Your task to perform on an android device: create a new album in the google photos Image 0: 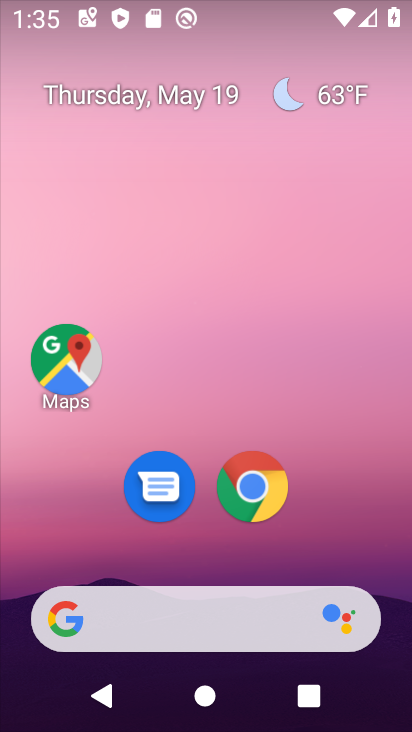
Step 0: drag from (337, 450) to (195, 5)
Your task to perform on an android device: create a new album in the google photos Image 1: 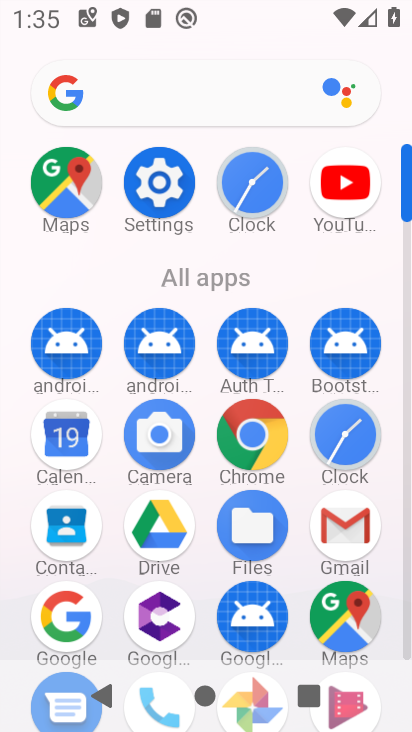
Step 1: drag from (217, 247) to (207, 214)
Your task to perform on an android device: create a new album in the google photos Image 2: 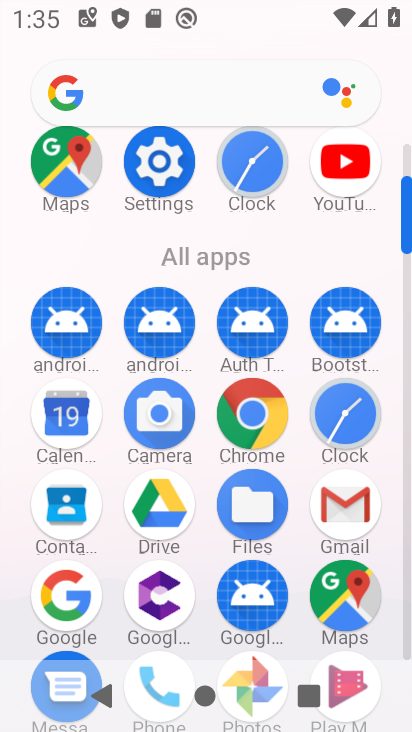
Step 2: drag from (215, 622) to (215, 222)
Your task to perform on an android device: create a new album in the google photos Image 3: 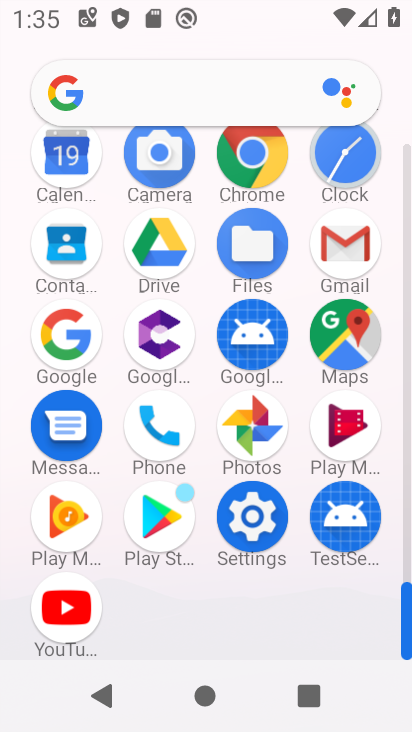
Step 3: click (261, 430)
Your task to perform on an android device: create a new album in the google photos Image 4: 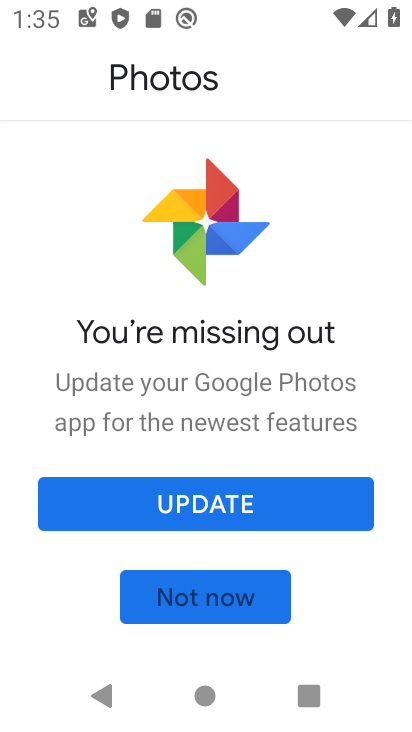
Step 4: click (229, 499)
Your task to perform on an android device: create a new album in the google photos Image 5: 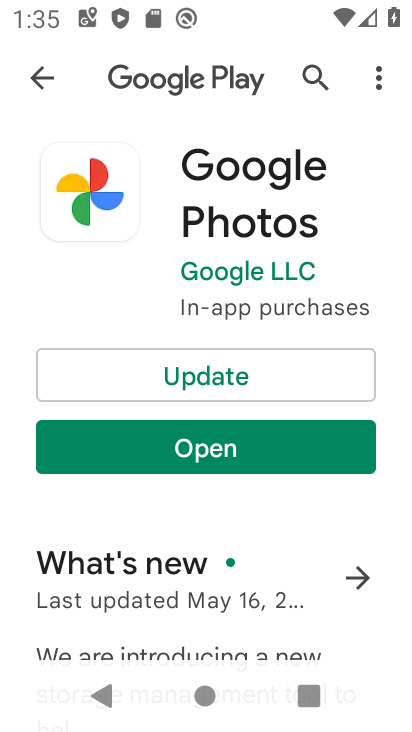
Step 5: click (269, 362)
Your task to perform on an android device: create a new album in the google photos Image 6: 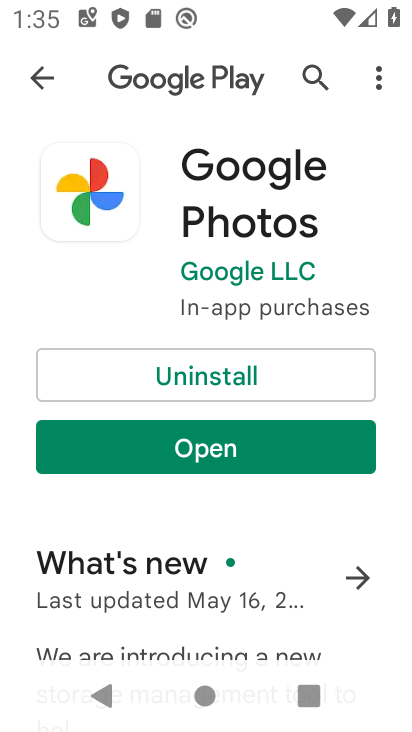
Step 6: click (307, 448)
Your task to perform on an android device: create a new album in the google photos Image 7: 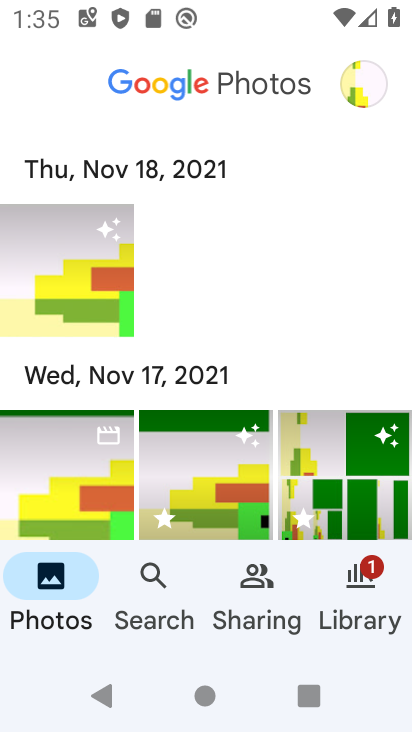
Step 7: click (353, 586)
Your task to perform on an android device: create a new album in the google photos Image 8: 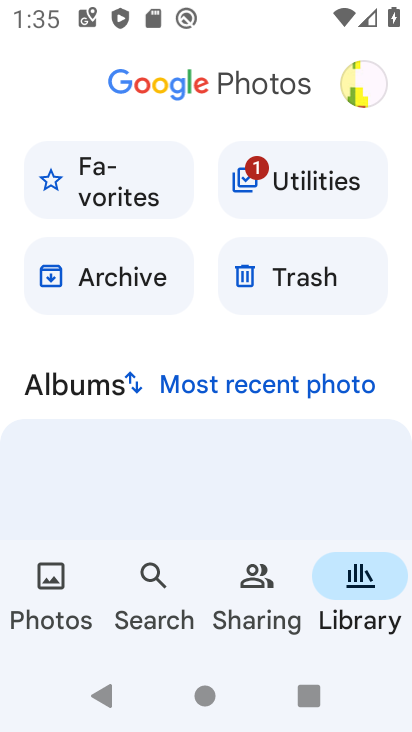
Step 8: drag from (161, 463) to (188, 190)
Your task to perform on an android device: create a new album in the google photos Image 9: 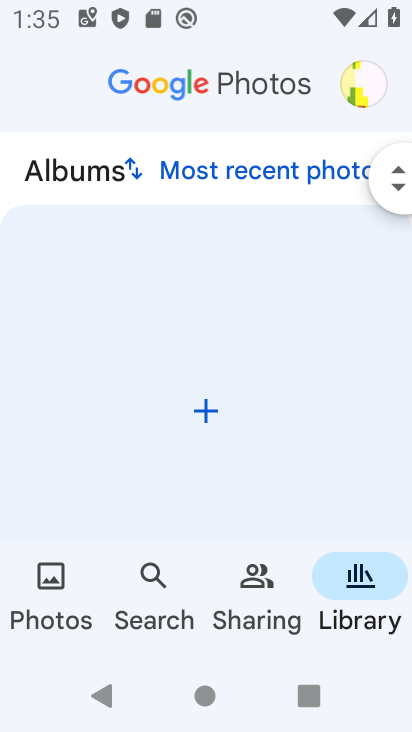
Step 9: click (219, 408)
Your task to perform on an android device: create a new album in the google photos Image 10: 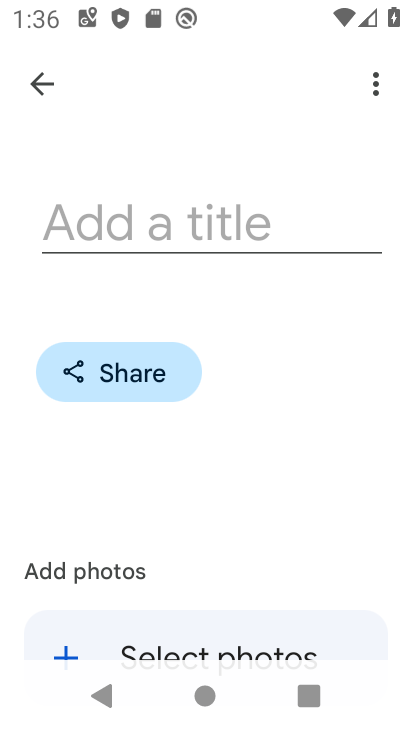
Step 10: click (216, 217)
Your task to perform on an android device: create a new album in the google photos Image 11: 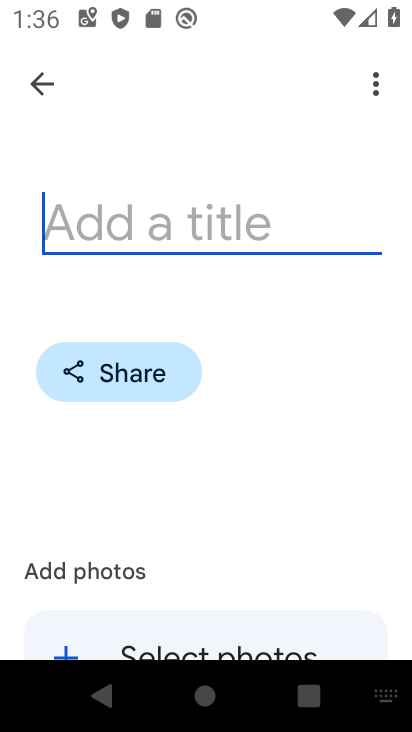
Step 11: type "gsgsd"
Your task to perform on an android device: create a new album in the google photos Image 12: 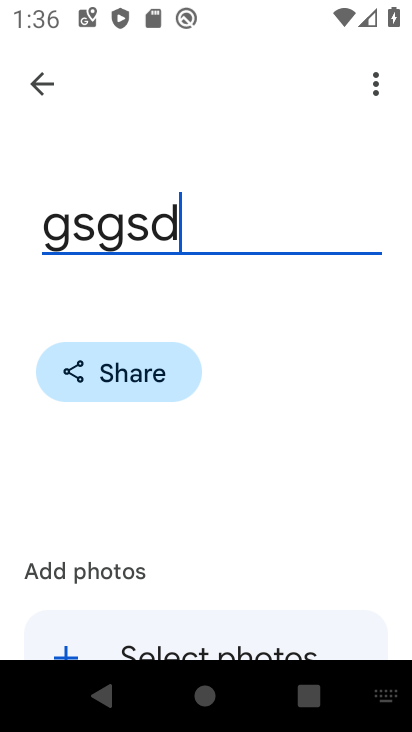
Step 12: type ""
Your task to perform on an android device: create a new album in the google photos Image 13: 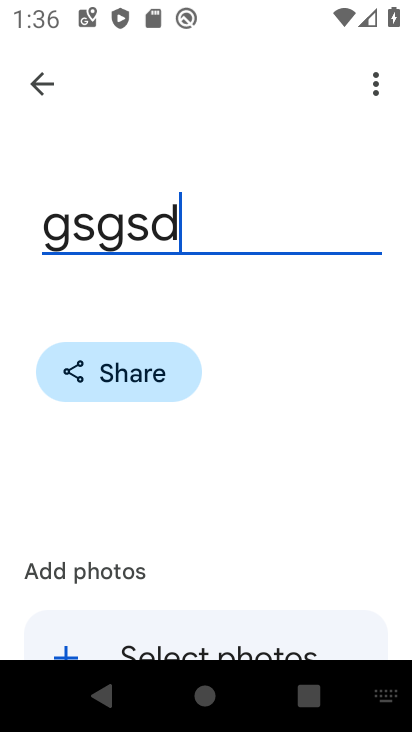
Step 13: drag from (227, 534) to (234, 192)
Your task to perform on an android device: create a new album in the google photos Image 14: 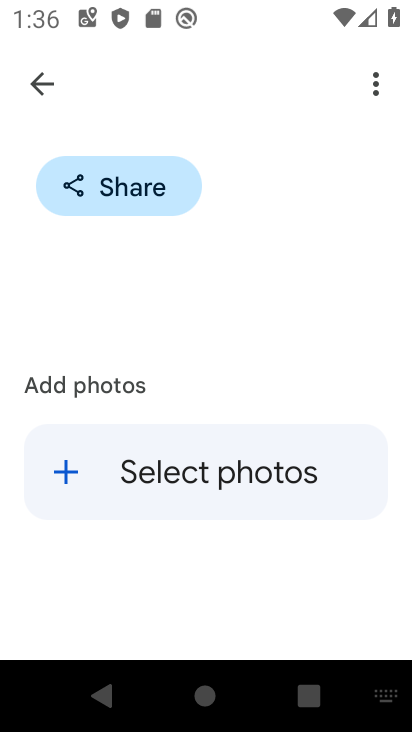
Step 14: click (247, 475)
Your task to perform on an android device: create a new album in the google photos Image 15: 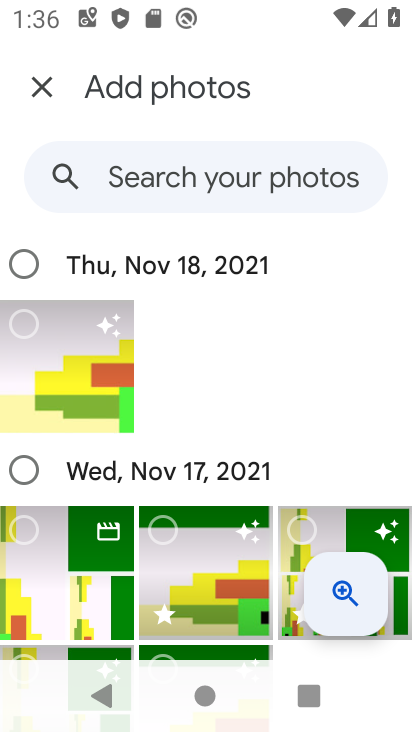
Step 15: click (99, 373)
Your task to perform on an android device: create a new album in the google photos Image 16: 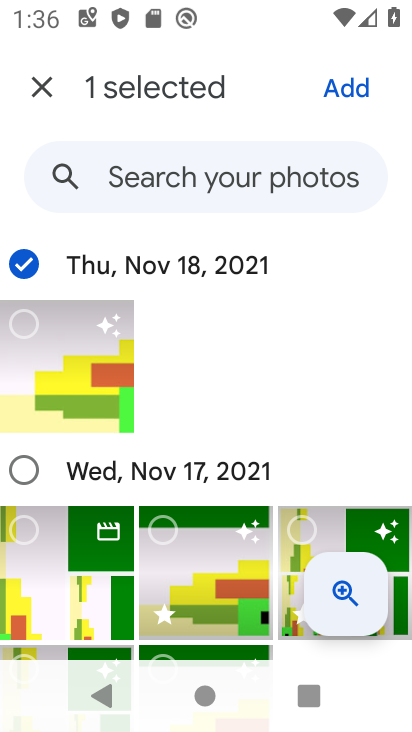
Step 16: click (222, 580)
Your task to perform on an android device: create a new album in the google photos Image 17: 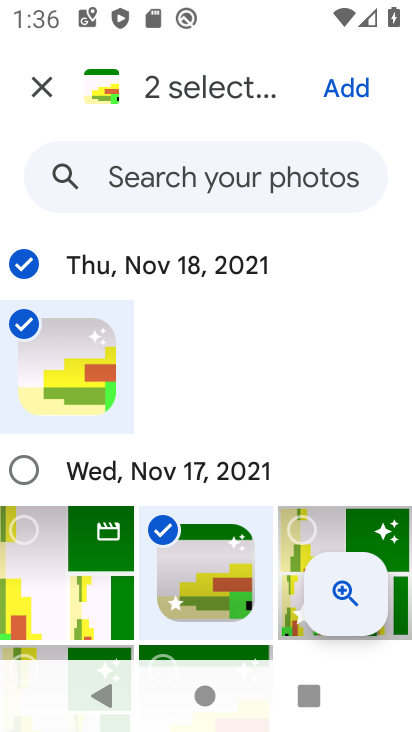
Step 17: click (119, 654)
Your task to perform on an android device: create a new album in the google photos Image 18: 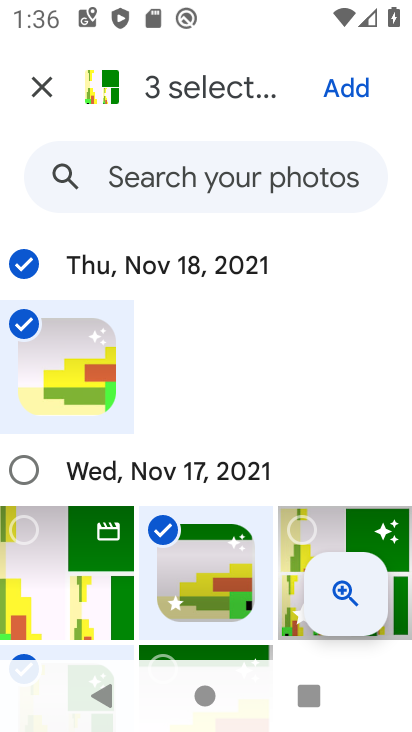
Step 18: click (349, 87)
Your task to perform on an android device: create a new album in the google photos Image 19: 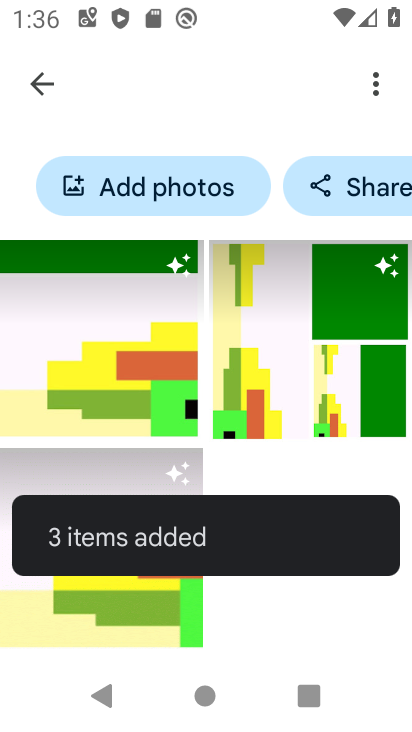
Step 19: task complete